Your task to perform on an android device: toggle notification dots Image 0: 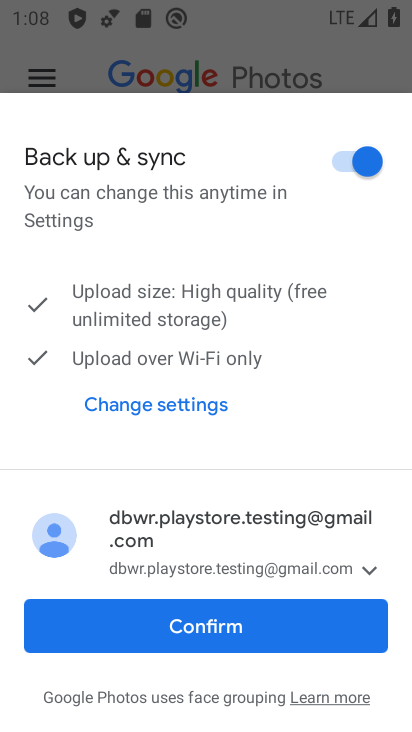
Step 0: press home button
Your task to perform on an android device: toggle notification dots Image 1: 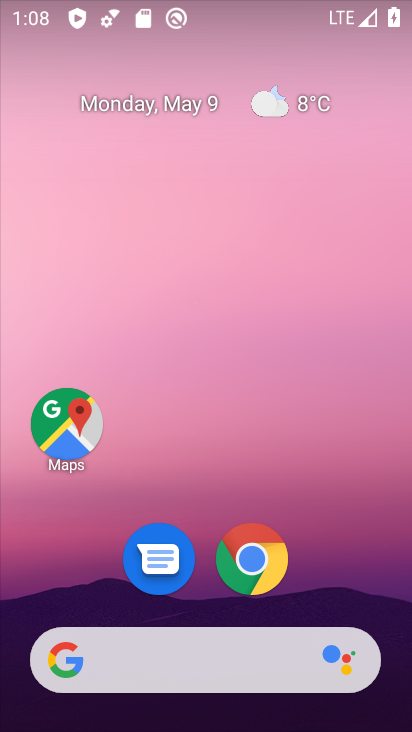
Step 1: drag from (366, 529) to (210, 22)
Your task to perform on an android device: toggle notification dots Image 2: 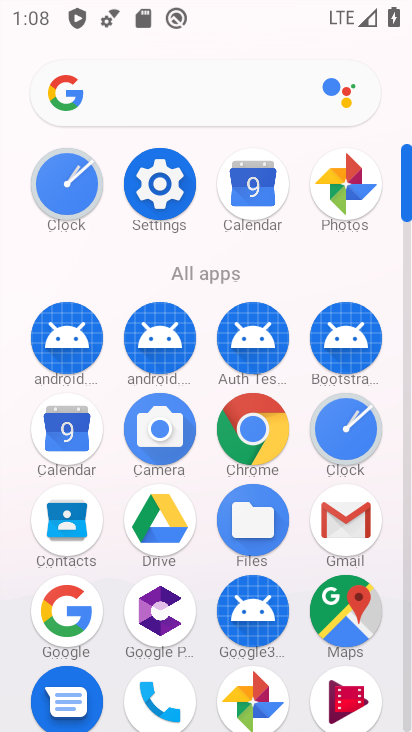
Step 2: click (162, 181)
Your task to perform on an android device: toggle notification dots Image 3: 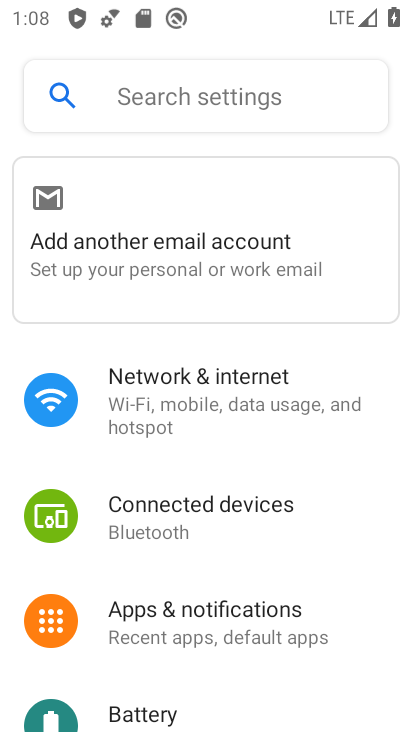
Step 3: click (193, 609)
Your task to perform on an android device: toggle notification dots Image 4: 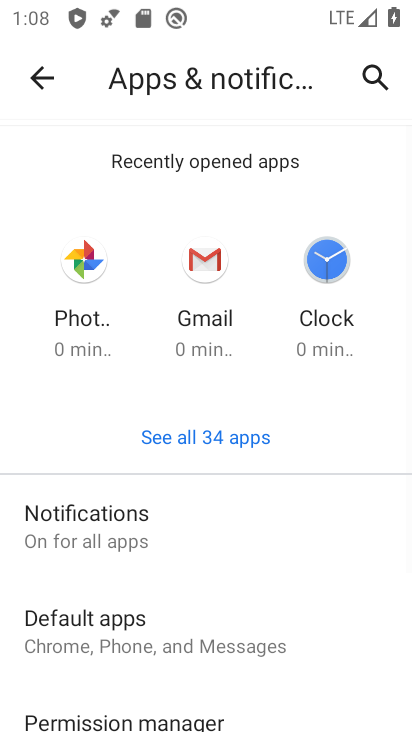
Step 4: click (108, 511)
Your task to perform on an android device: toggle notification dots Image 5: 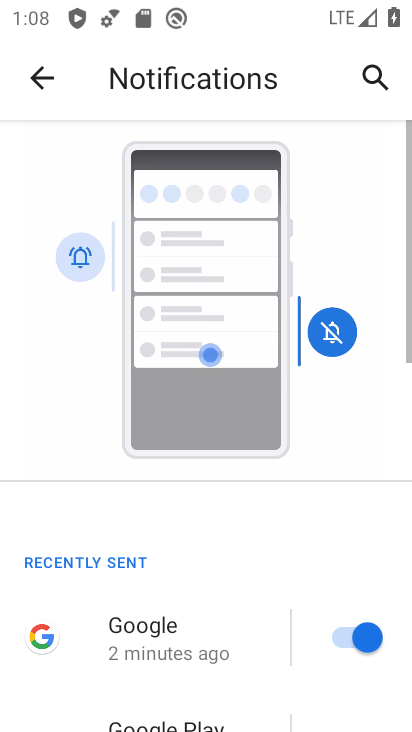
Step 5: drag from (240, 537) to (140, 144)
Your task to perform on an android device: toggle notification dots Image 6: 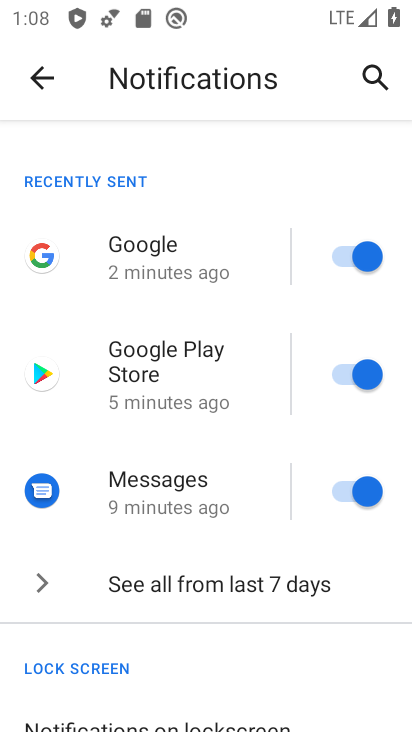
Step 6: drag from (242, 458) to (192, 196)
Your task to perform on an android device: toggle notification dots Image 7: 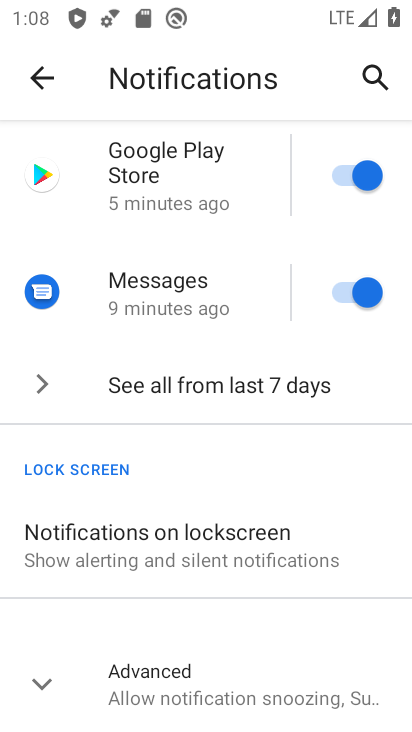
Step 7: drag from (231, 596) to (213, 364)
Your task to perform on an android device: toggle notification dots Image 8: 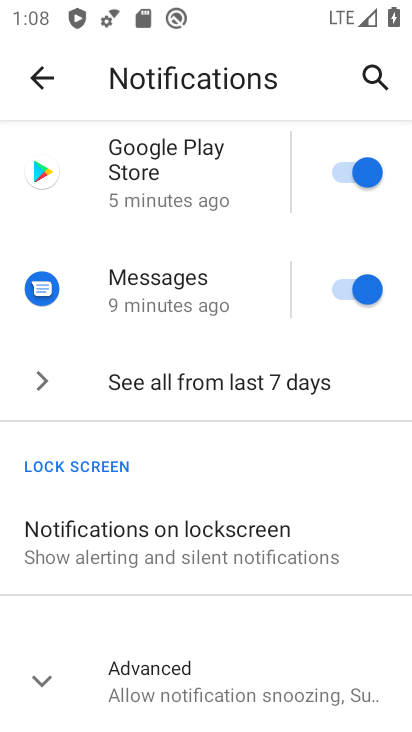
Step 8: click (37, 682)
Your task to perform on an android device: toggle notification dots Image 9: 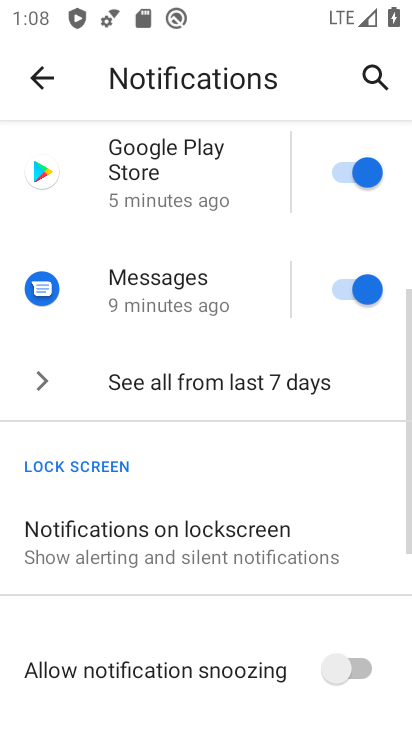
Step 9: drag from (179, 588) to (93, 195)
Your task to perform on an android device: toggle notification dots Image 10: 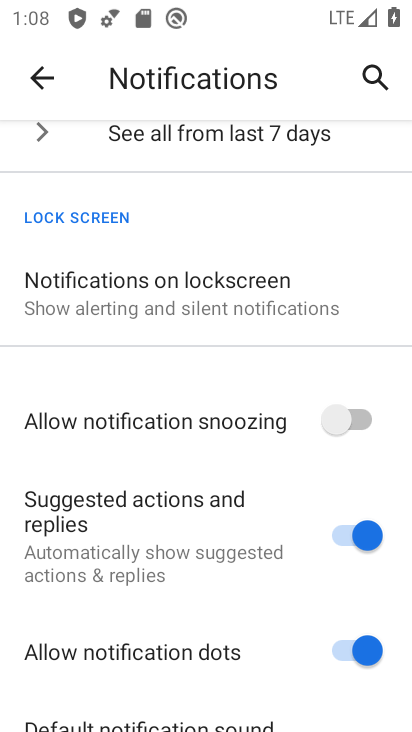
Step 10: click (360, 644)
Your task to perform on an android device: toggle notification dots Image 11: 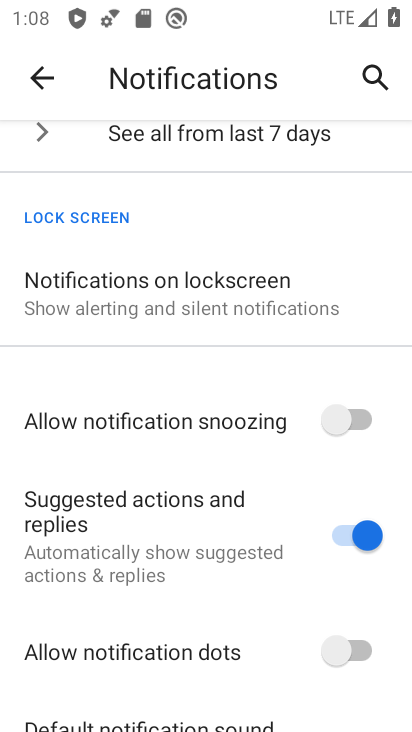
Step 11: task complete